Your task to perform on an android device: delete a single message in the gmail app Image 0: 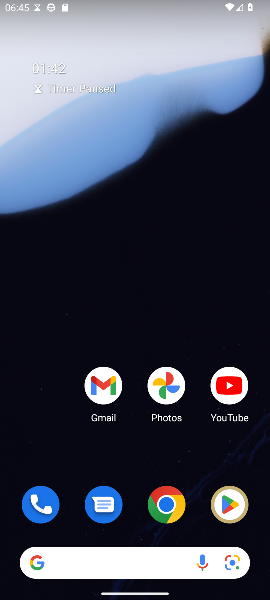
Step 0: click (104, 387)
Your task to perform on an android device: delete a single message in the gmail app Image 1: 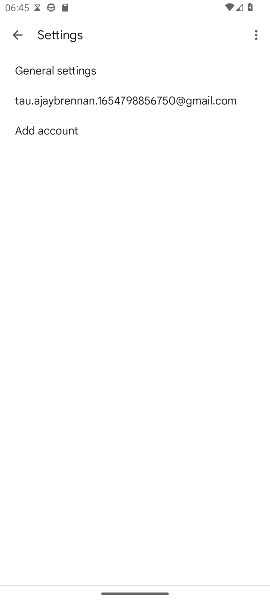
Step 1: press back button
Your task to perform on an android device: delete a single message in the gmail app Image 2: 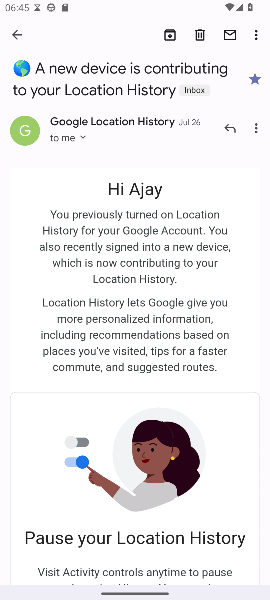
Step 2: click (198, 34)
Your task to perform on an android device: delete a single message in the gmail app Image 3: 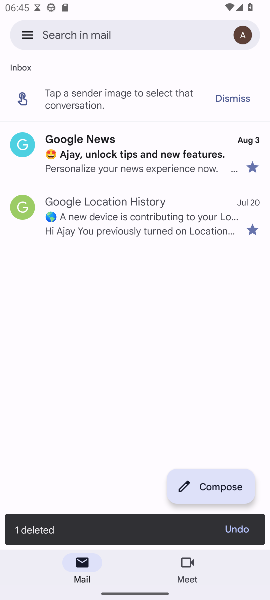
Step 3: task complete